Your task to perform on an android device: Clear the cart on newegg. Add "logitech g pro" to the cart on newegg Image 0: 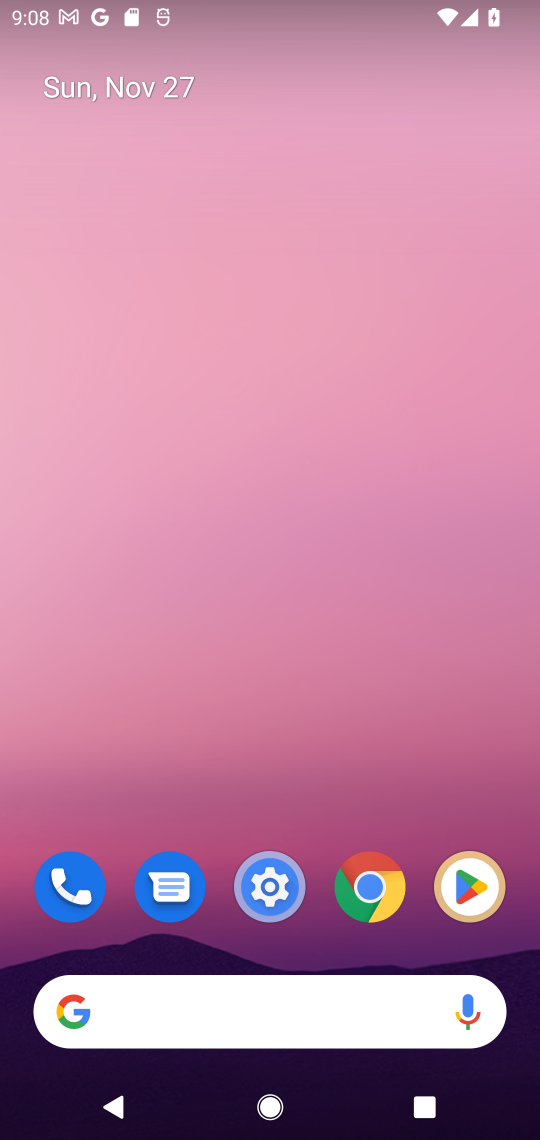
Step 0: click (347, 988)
Your task to perform on an android device: Clear the cart on newegg. Add "logitech g pro" to the cart on newegg Image 1: 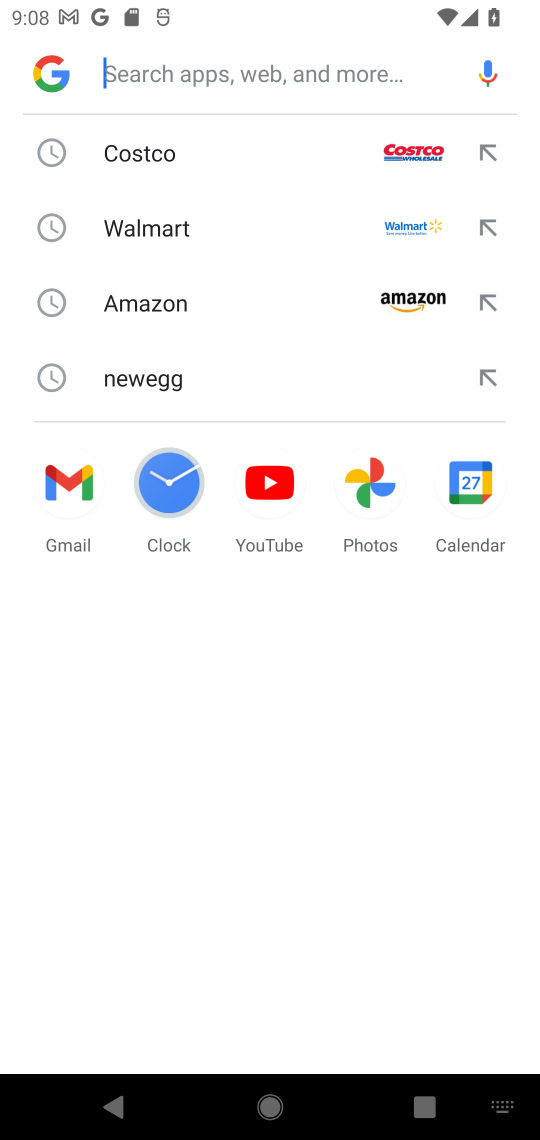
Step 1: type "newgg"
Your task to perform on an android device: Clear the cart on newegg. Add "logitech g pro" to the cart on newegg Image 2: 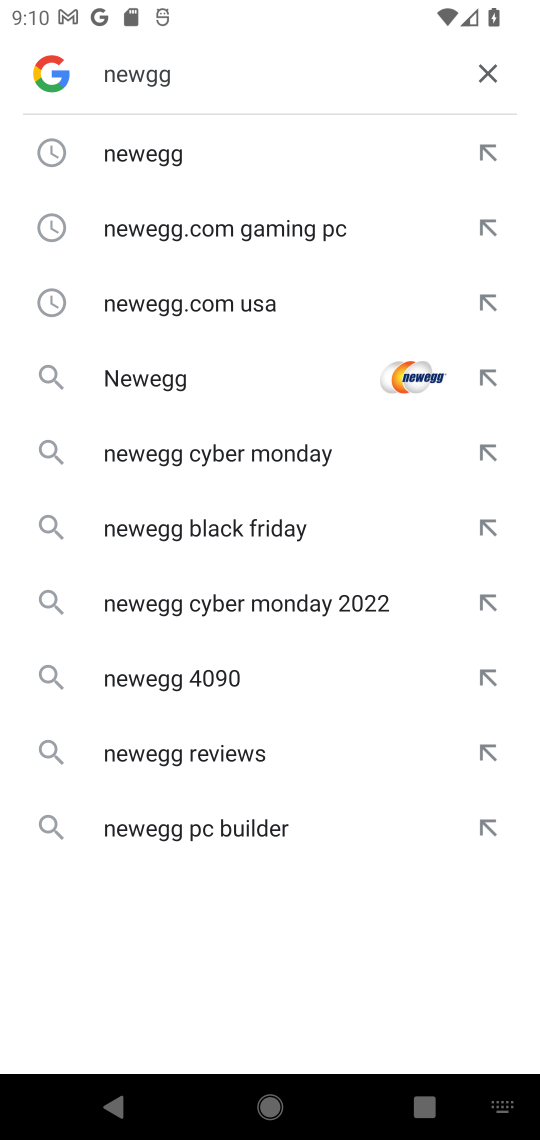
Step 2: click (278, 184)
Your task to perform on an android device: Clear the cart on newegg. Add "logitech g pro" to the cart on newegg Image 3: 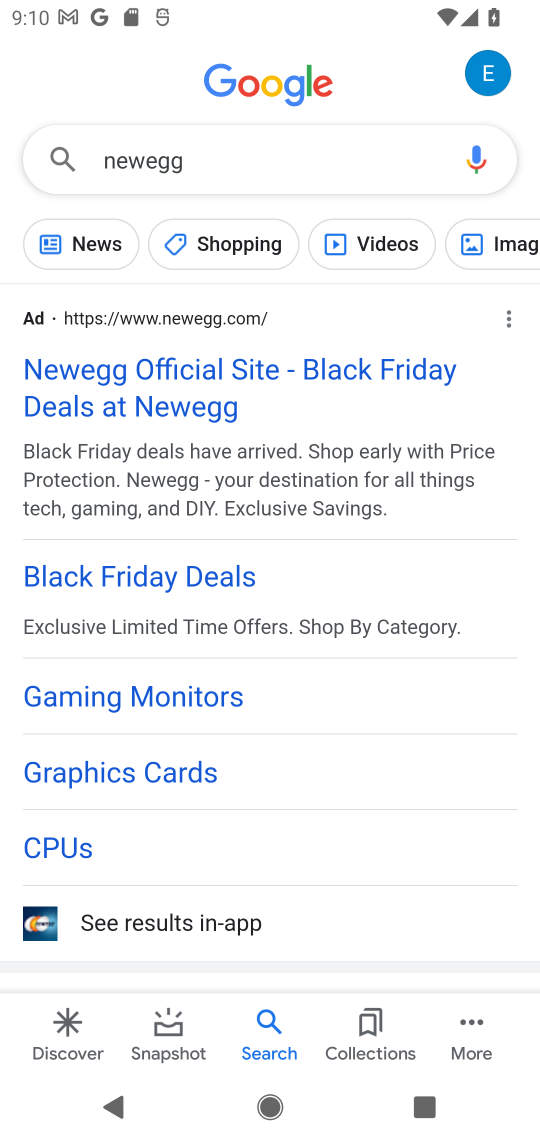
Step 3: click (229, 356)
Your task to perform on an android device: Clear the cart on newegg. Add "logitech g pro" to the cart on newegg Image 4: 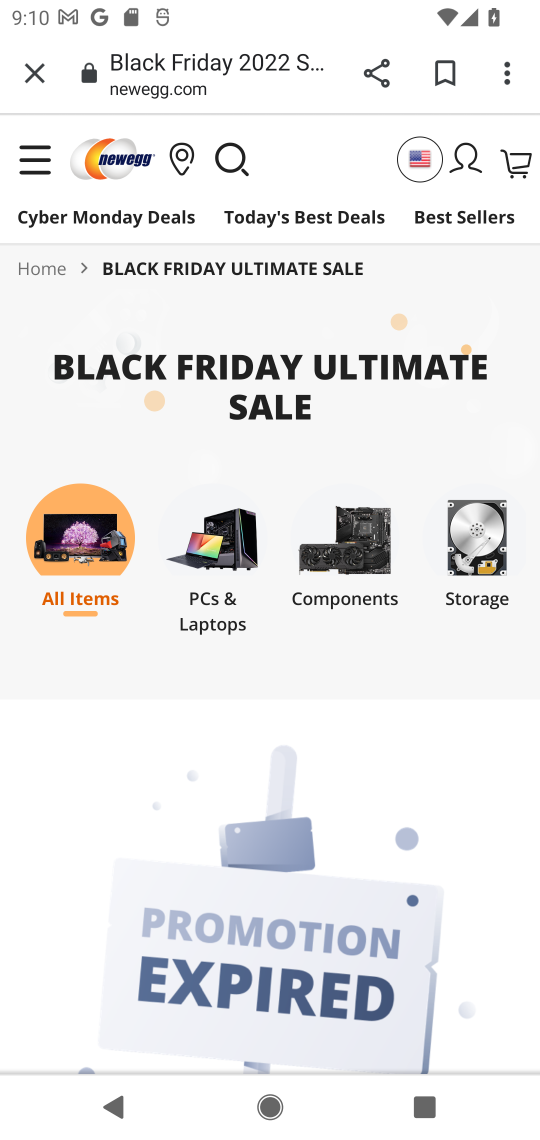
Step 4: click (249, 166)
Your task to perform on an android device: Clear the cart on newegg. Add "logitech g pro" to the cart on newegg Image 5: 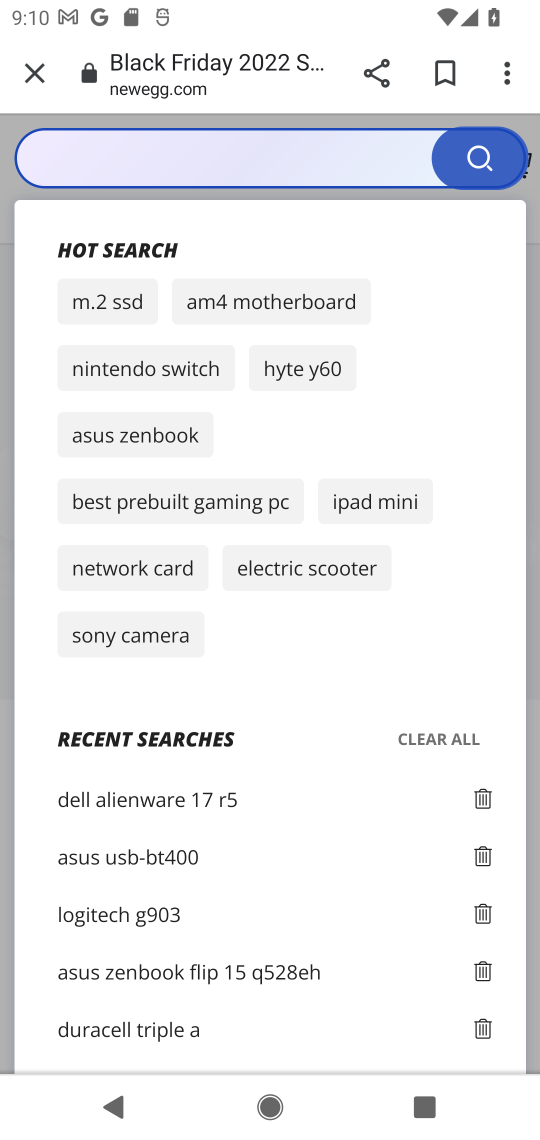
Step 5: type "logitech gpro"
Your task to perform on an android device: Clear the cart on newegg. Add "logitech g pro" to the cart on newegg Image 6: 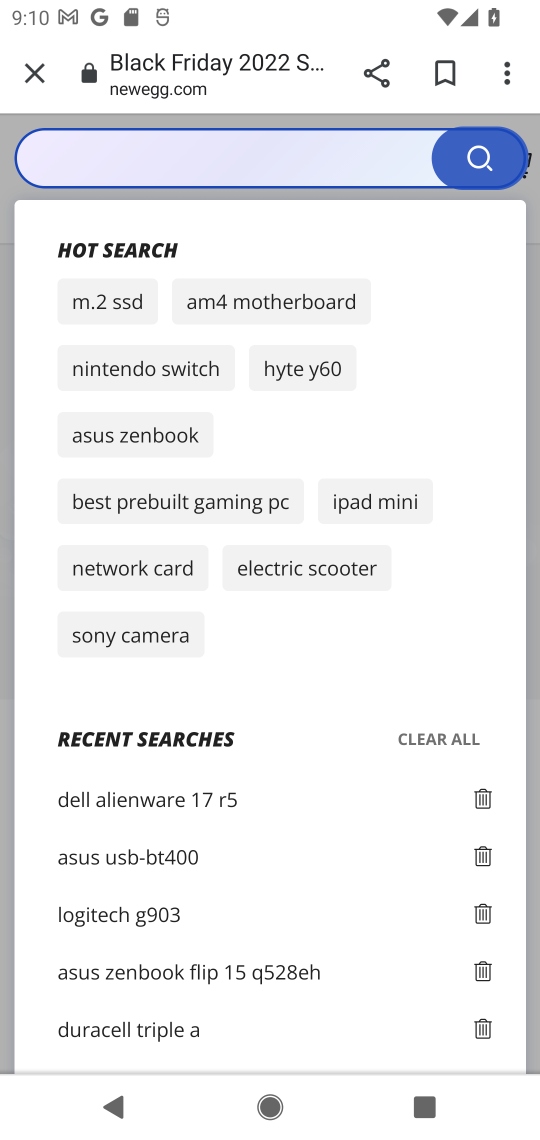
Step 6: task complete